Your task to perform on an android device: toggle location history Image 0: 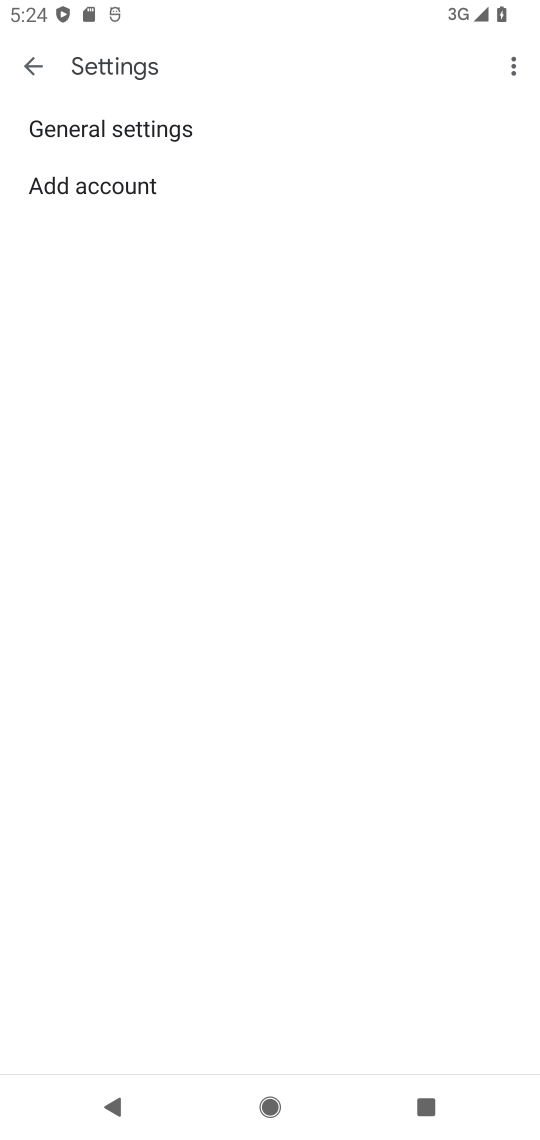
Step 0: press home button
Your task to perform on an android device: toggle location history Image 1: 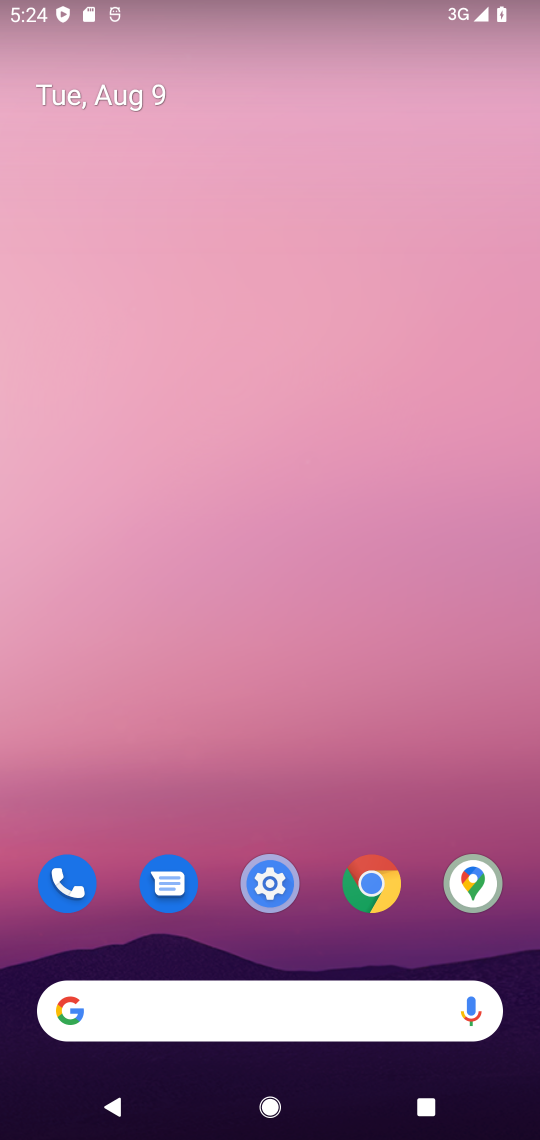
Step 1: click (285, 876)
Your task to perform on an android device: toggle location history Image 2: 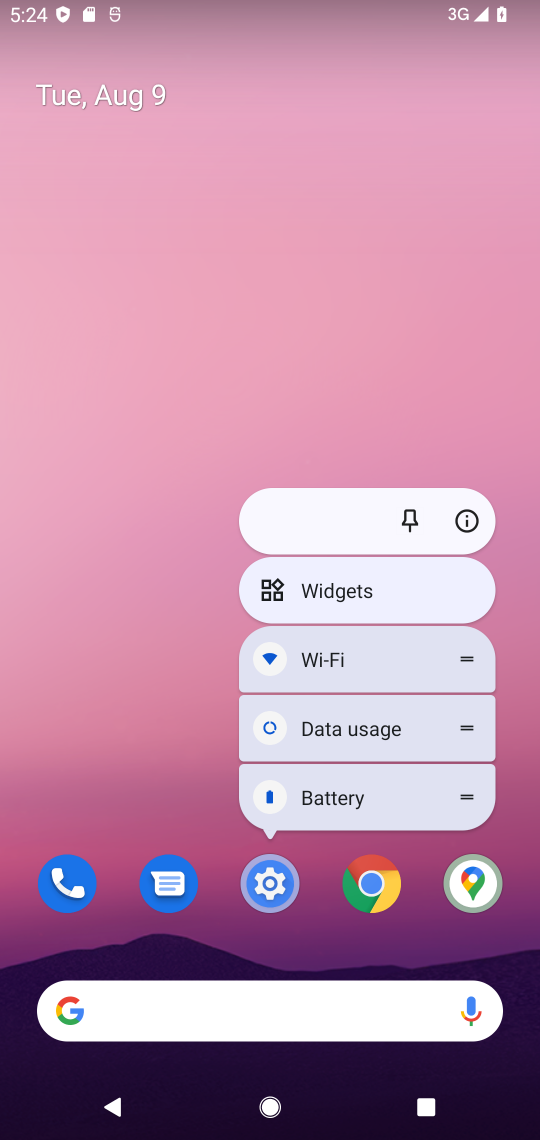
Step 2: click (277, 880)
Your task to perform on an android device: toggle location history Image 3: 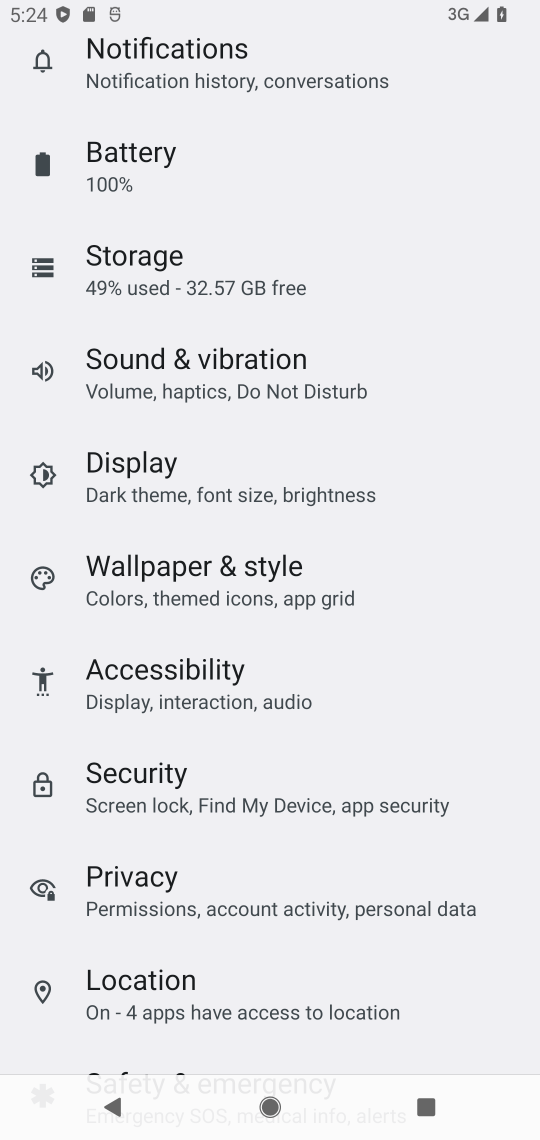
Step 3: click (223, 969)
Your task to perform on an android device: toggle location history Image 4: 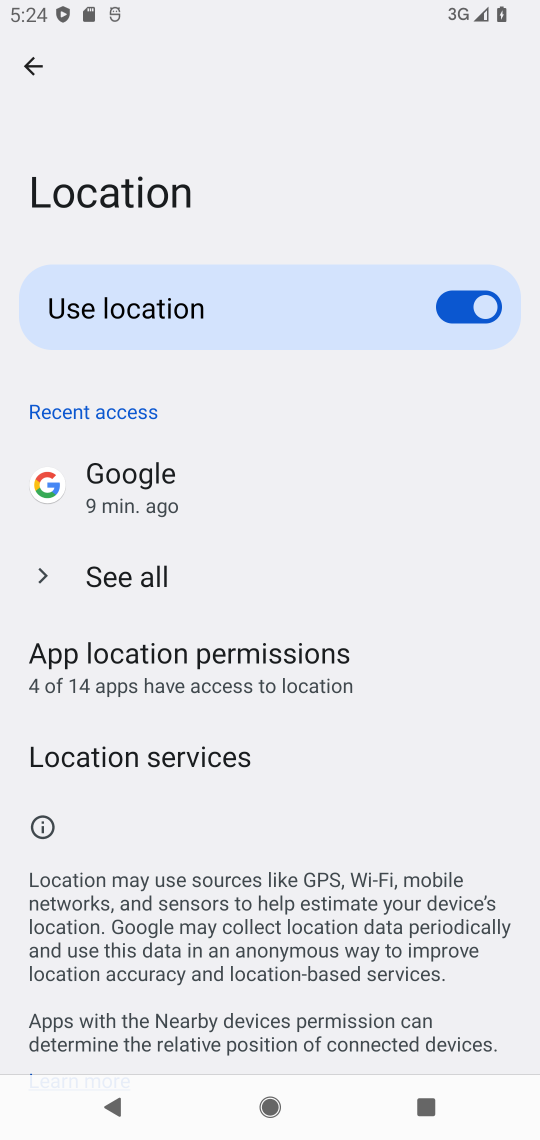
Step 4: click (216, 769)
Your task to perform on an android device: toggle location history Image 5: 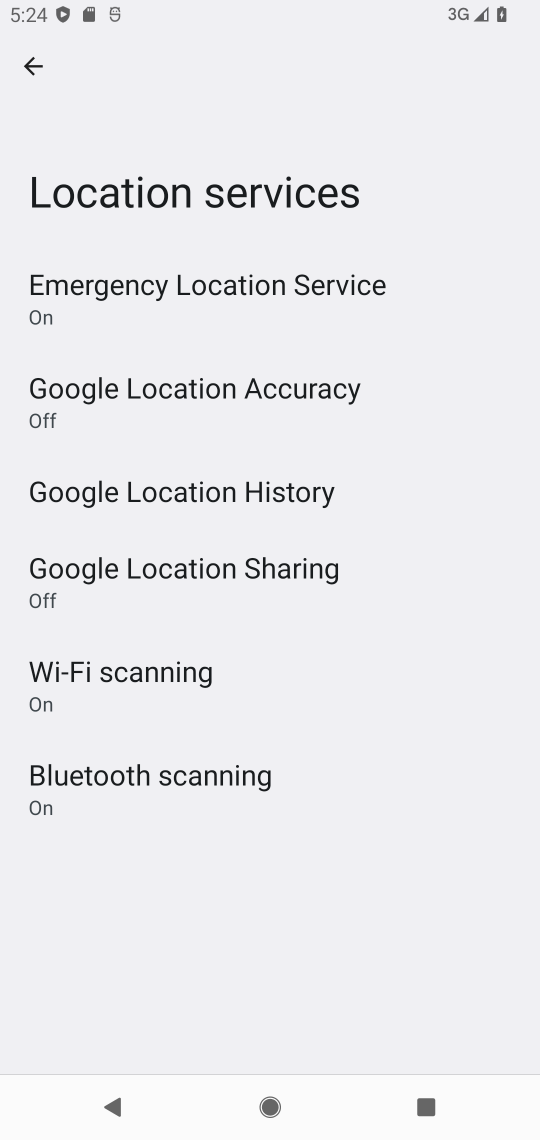
Step 5: click (237, 490)
Your task to perform on an android device: toggle location history Image 6: 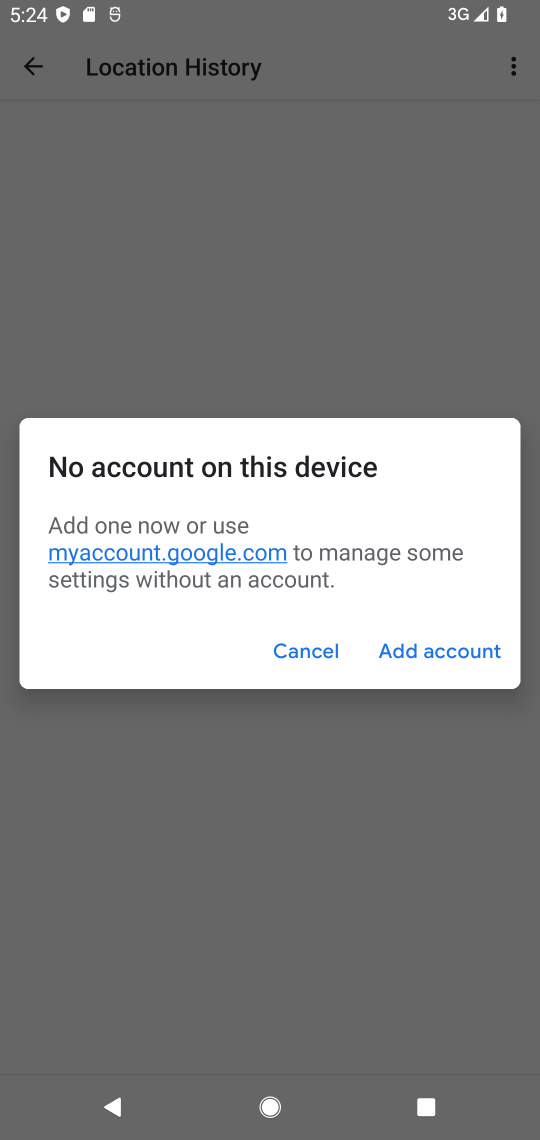
Step 6: click (294, 629)
Your task to perform on an android device: toggle location history Image 7: 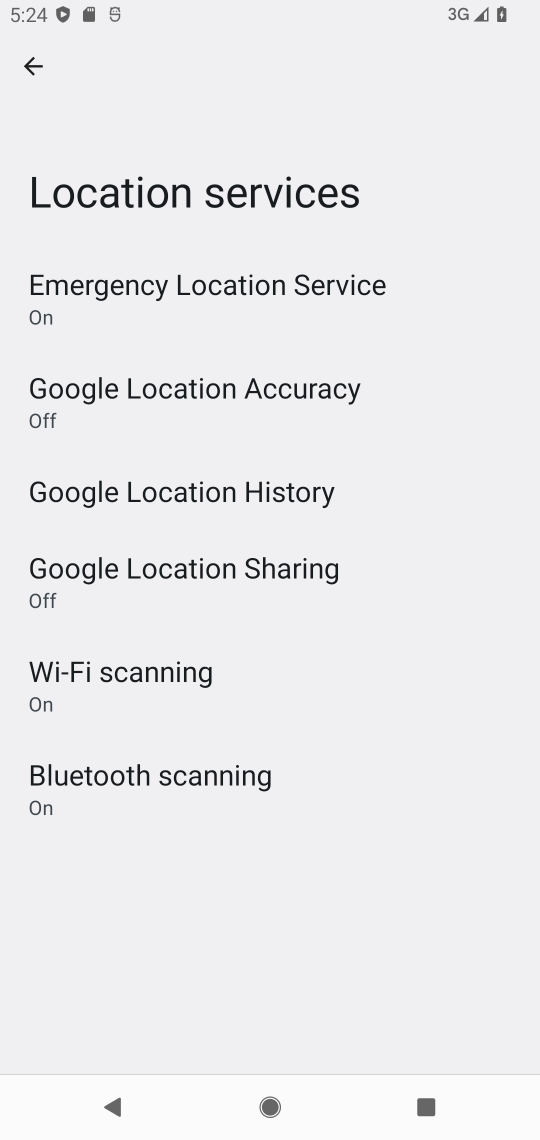
Step 7: click (225, 515)
Your task to perform on an android device: toggle location history Image 8: 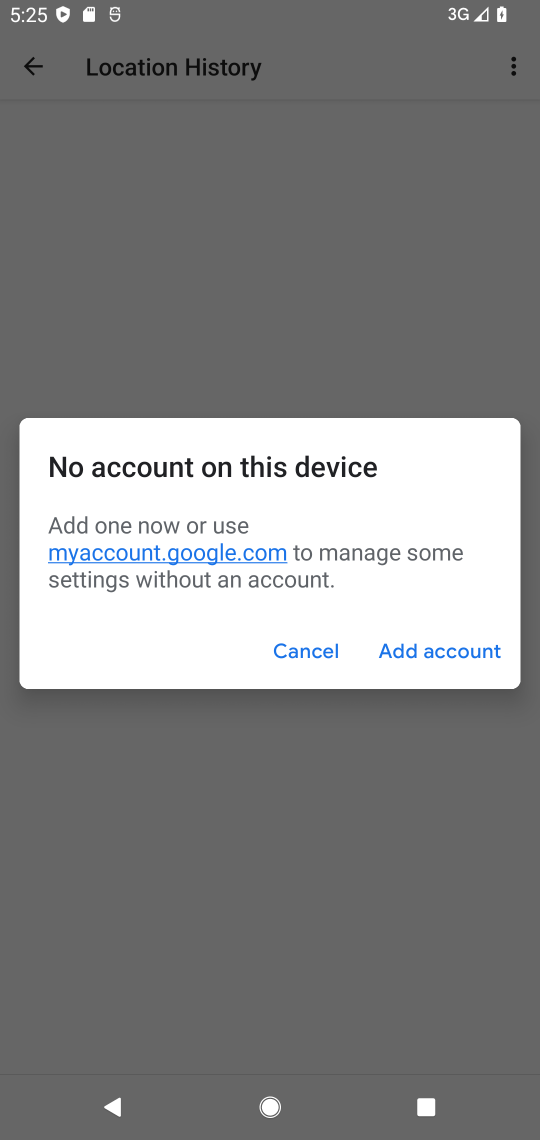
Step 8: task complete